Your task to perform on an android device: toggle priority inbox in the gmail app Image 0: 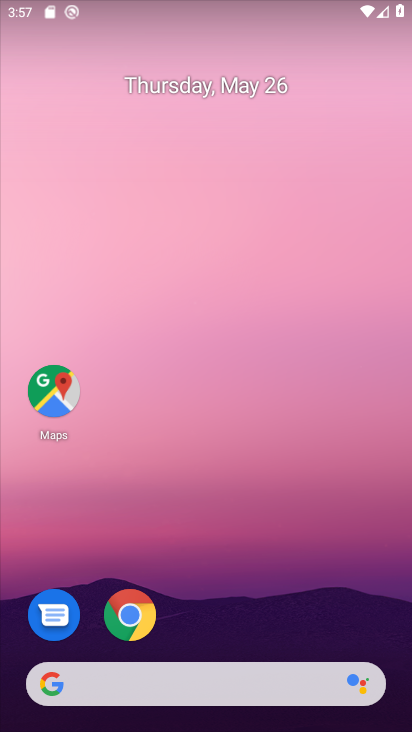
Step 0: drag from (199, 654) to (279, 246)
Your task to perform on an android device: toggle priority inbox in the gmail app Image 1: 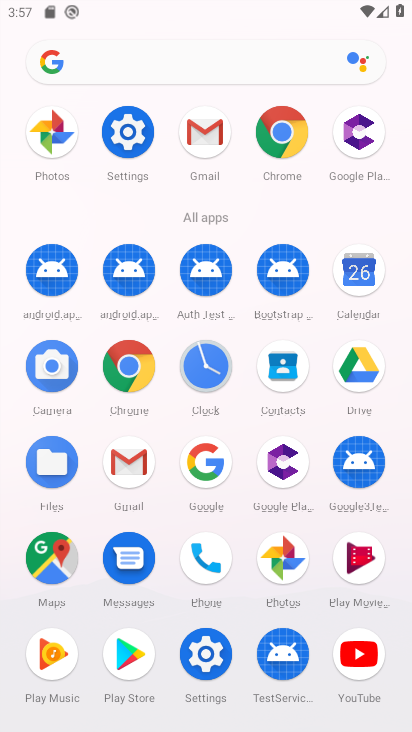
Step 1: drag from (148, 611) to (220, 417)
Your task to perform on an android device: toggle priority inbox in the gmail app Image 2: 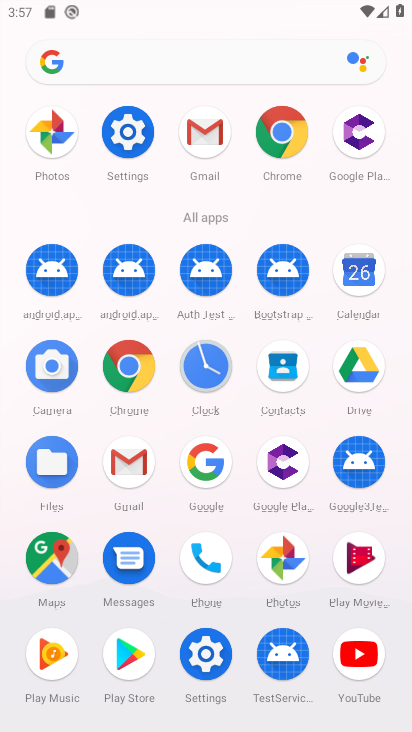
Step 2: click (125, 466)
Your task to perform on an android device: toggle priority inbox in the gmail app Image 3: 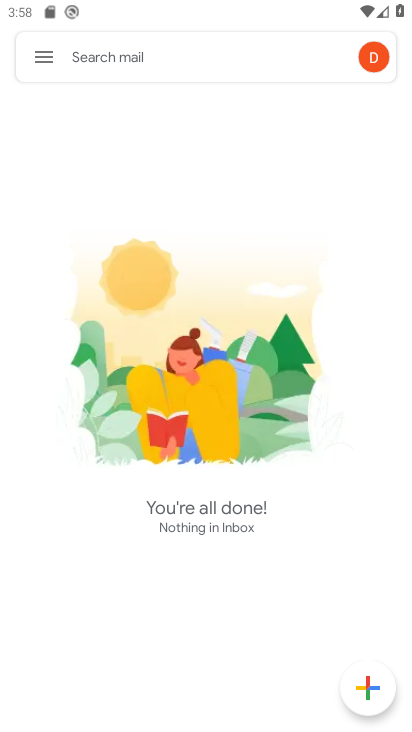
Step 3: click (48, 61)
Your task to perform on an android device: toggle priority inbox in the gmail app Image 4: 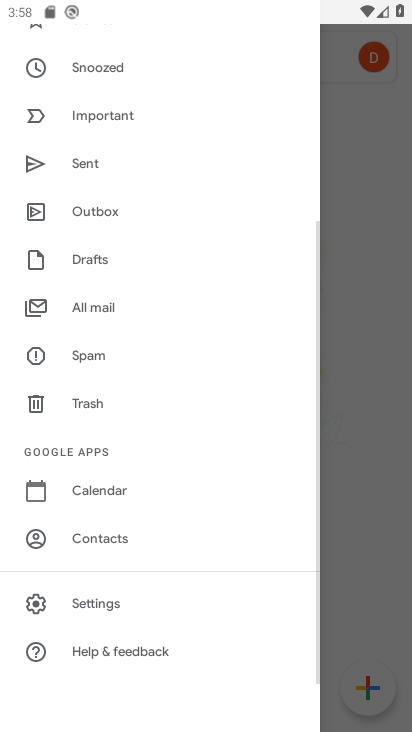
Step 4: drag from (134, 613) to (293, 190)
Your task to perform on an android device: toggle priority inbox in the gmail app Image 5: 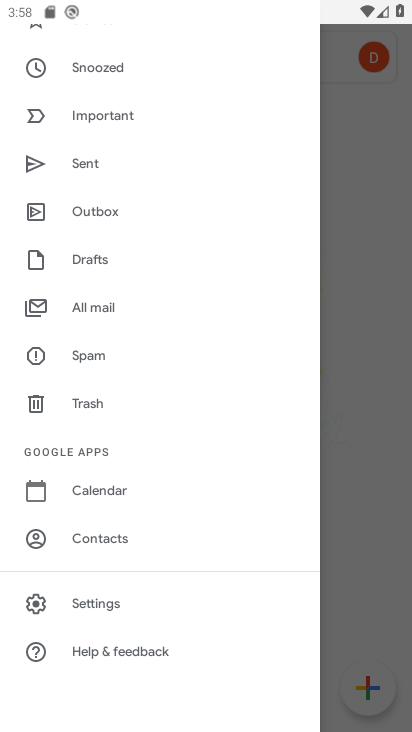
Step 5: click (144, 609)
Your task to perform on an android device: toggle priority inbox in the gmail app Image 6: 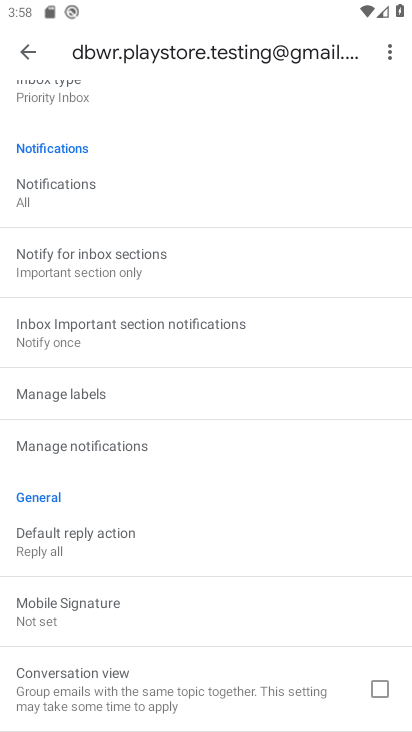
Step 6: drag from (209, 175) to (194, 339)
Your task to perform on an android device: toggle priority inbox in the gmail app Image 7: 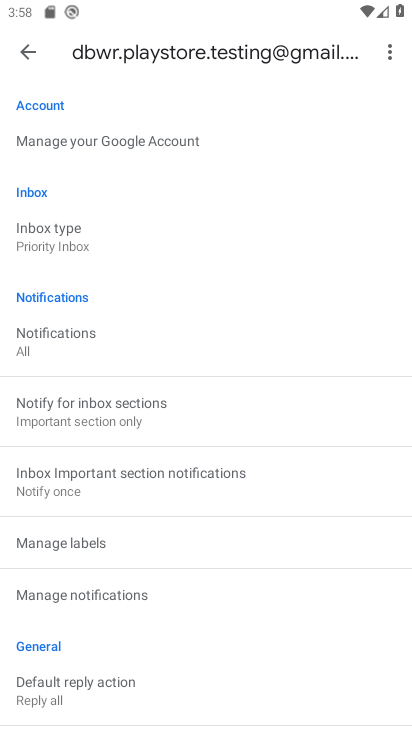
Step 7: click (119, 245)
Your task to perform on an android device: toggle priority inbox in the gmail app Image 8: 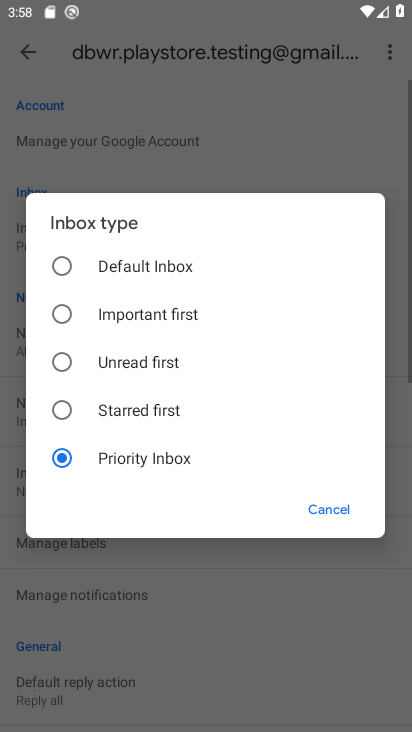
Step 8: click (148, 267)
Your task to perform on an android device: toggle priority inbox in the gmail app Image 9: 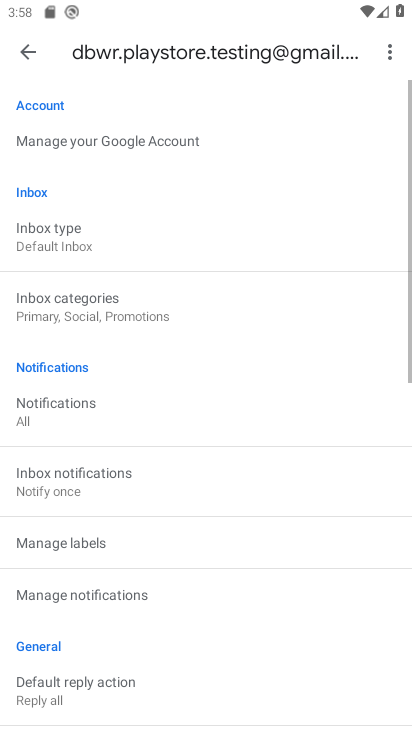
Step 9: task complete